Your task to perform on an android device: empty trash in the gmail app Image 0: 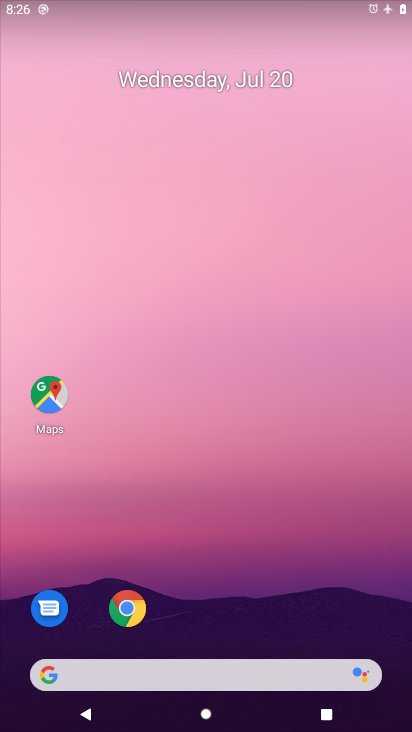
Step 0: drag from (223, 640) to (227, 114)
Your task to perform on an android device: empty trash in the gmail app Image 1: 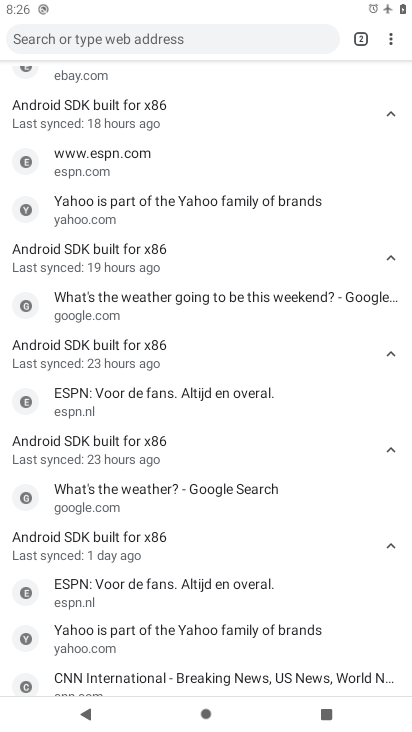
Step 1: press home button
Your task to perform on an android device: empty trash in the gmail app Image 2: 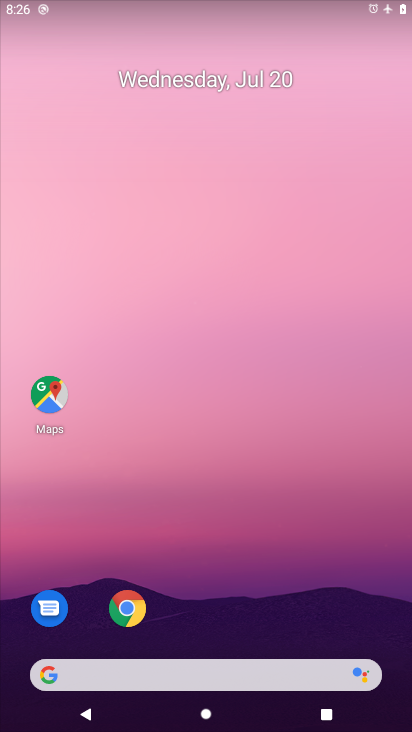
Step 2: drag from (246, 603) to (220, 108)
Your task to perform on an android device: empty trash in the gmail app Image 3: 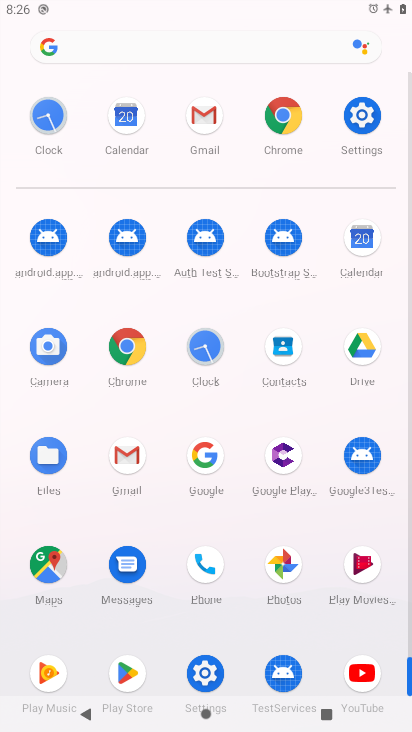
Step 3: click (130, 462)
Your task to perform on an android device: empty trash in the gmail app Image 4: 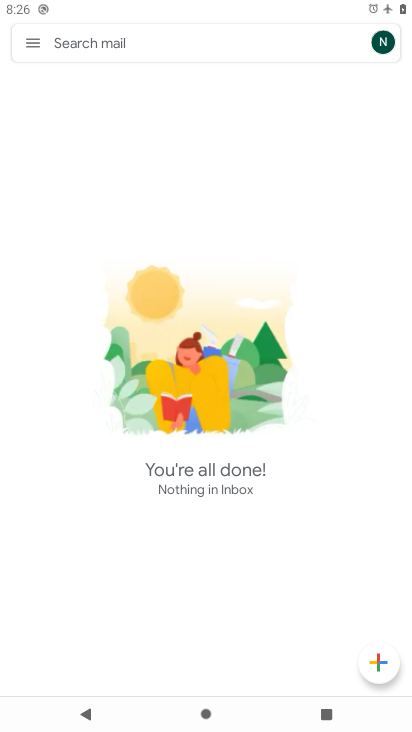
Step 4: click (26, 43)
Your task to perform on an android device: empty trash in the gmail app Image 5: 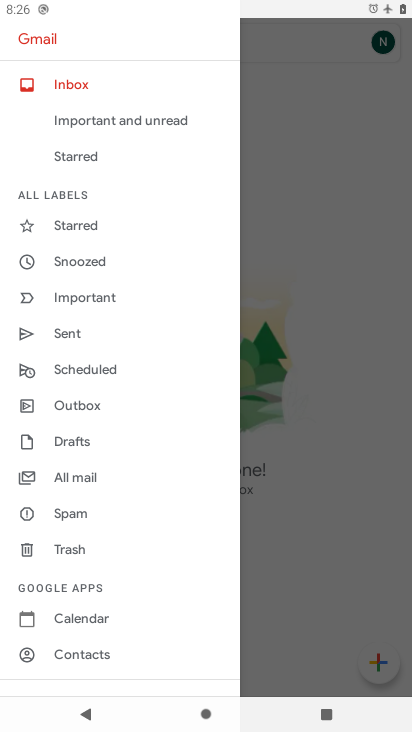
Step 5: click (64, 553)
Your task to perform on an android device: empty trash in the gmail app Image 6: 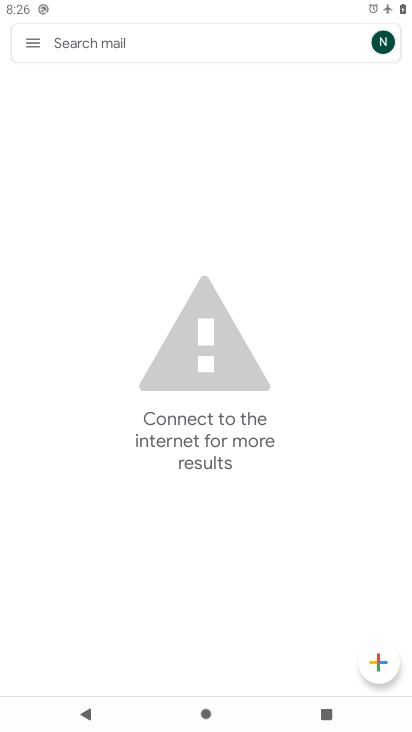
Step 6: task complete